Your task to perform on an android device: Open settings on Google Maps Image 0: 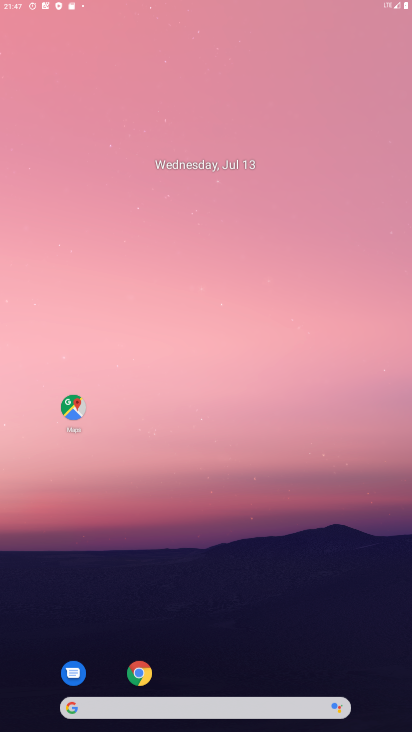
Step 0: click (342, 157)
Your task to perform on an android device: Open settings on Google Maps Image 1: 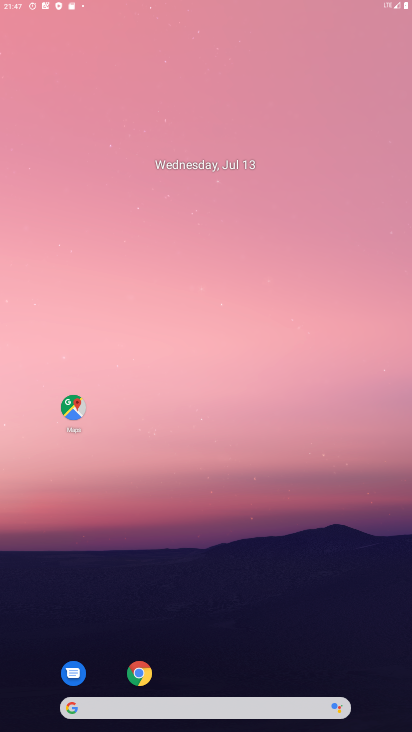
Step 1: drag from (174, 642) to (286, 81)
Your task to perform on an android device: Open settings on Google Maps Image 2: 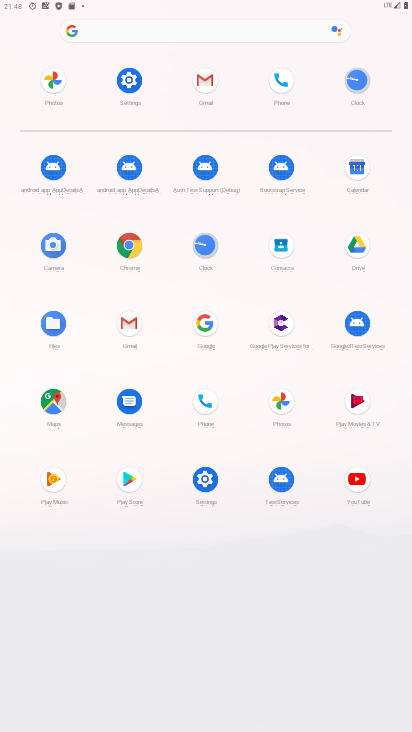
Step 2: click (58, 392)
Your task to perform on an android device: Open settings on Google Maps Image 3: 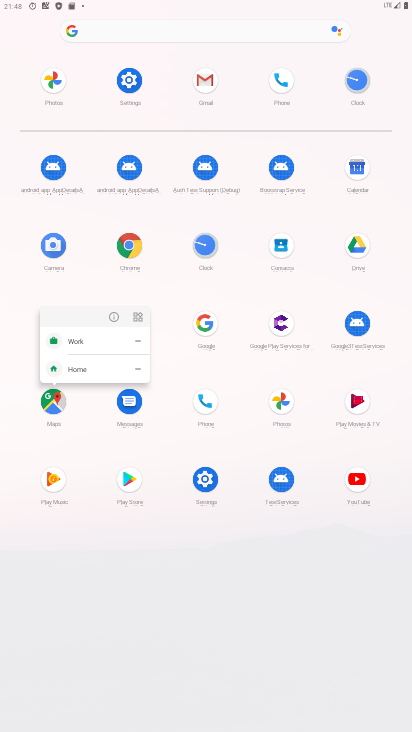
Step 3: click (113, 316)
Your task to perform on an android device: Open settings on Google Maps Image 4: 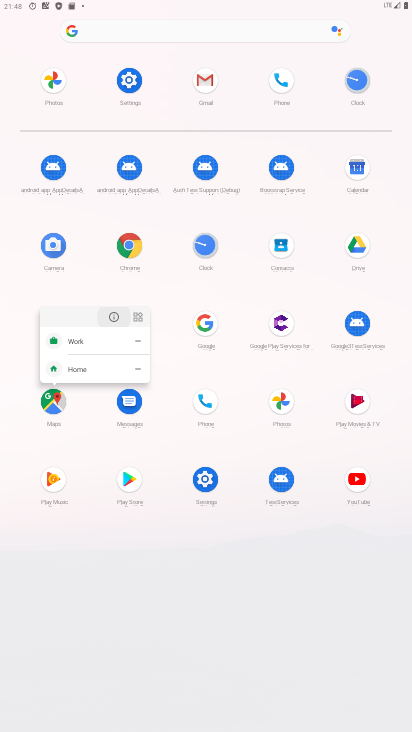
Step 4: click (113, 316)
Your task to perform on an android device: Open settings on Google Maps Image 5: 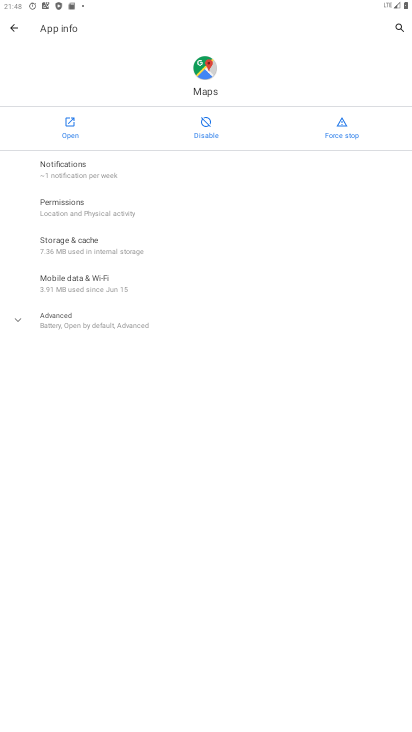
Step 5: click (69, 132)
Your task to perform on an android device: Open settings on Google Maps Image 6: 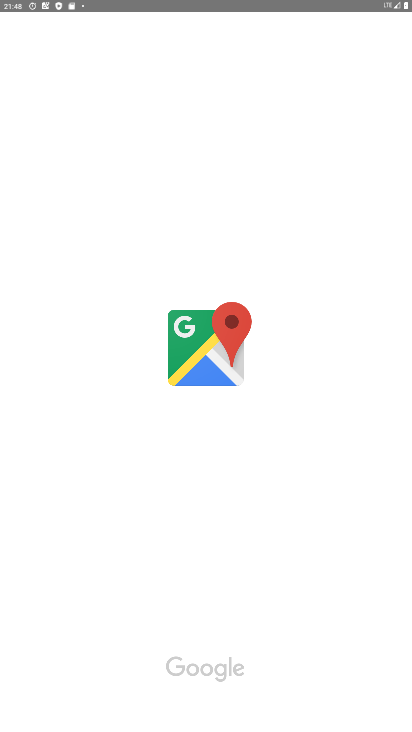
Step 6: drag from (202, 578) to (222, 332)
Your task to perform on an android device: Open settings on Google Maps Image 7: 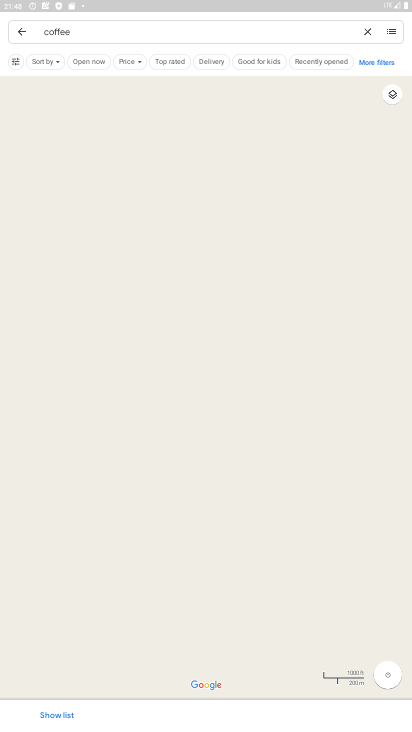
Step 7: drag from (260, 596) to (248, 334)
Your task to perform on an android device: Open settings on Google Maps Image 8: 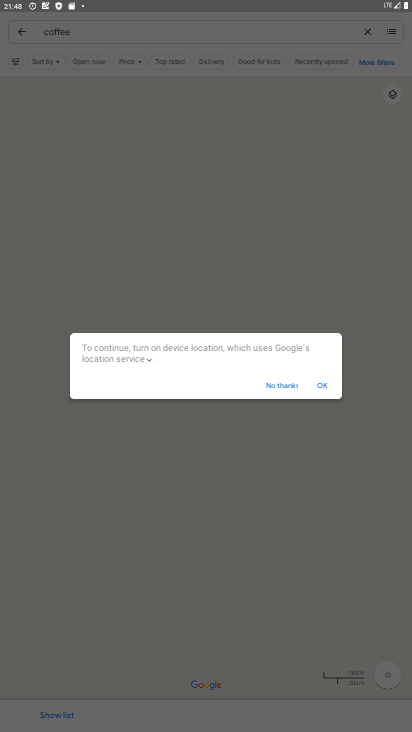
Step 8: drag from (215, 166) to (296, 550)
Your task to perform on an android device: Open settings on Google Maps Image 9: 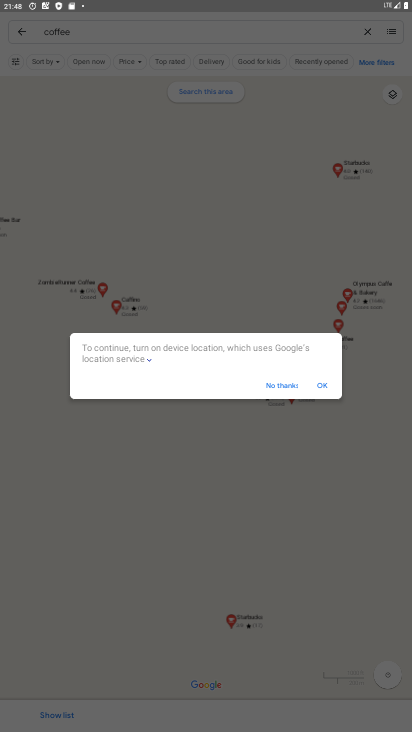
Step 9: click (320, 386)
Your task to perform on an android device: Open settings on Google Maps Image 10: 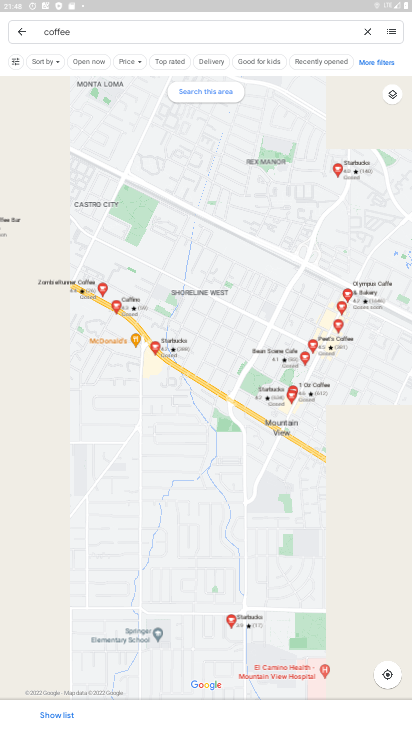
Step 10: click (19, 34)
Your task to perform on an android device: Open settings on Google Maps Image 11: 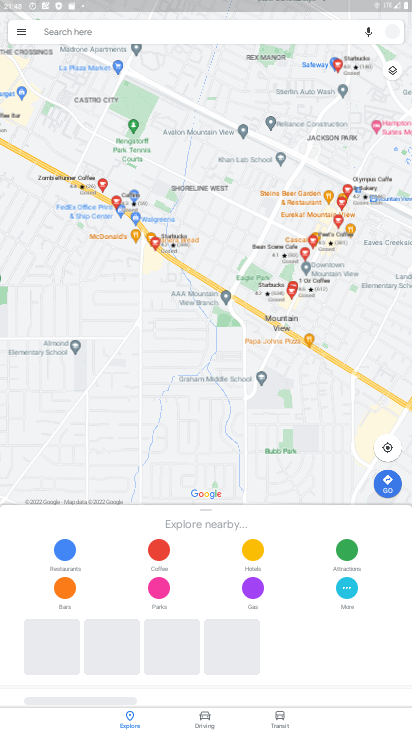
Step 11: click (14, 32)
Your task to perform on an android device: Open settings on Google Maps Image 12: 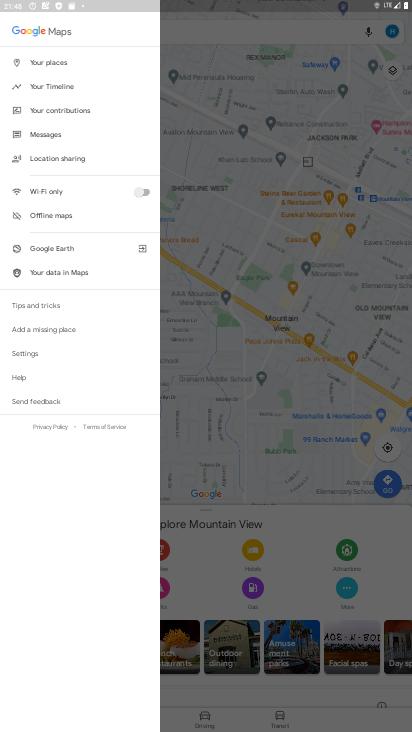
Step 12: click (33, 354)
Your task to perform on an android device: Open settings on Google Maps Image 13: 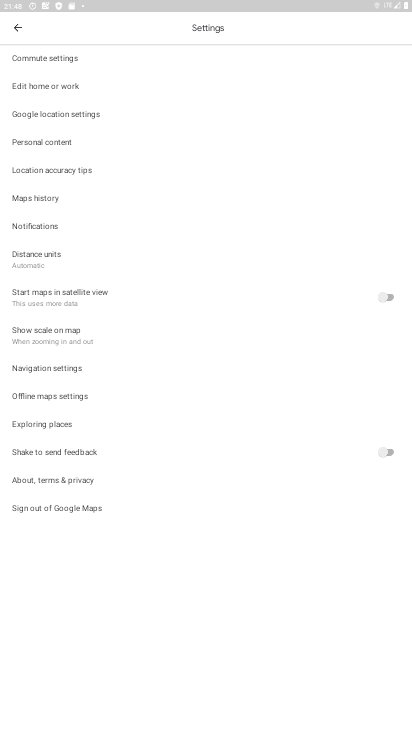
Step 13: drag from (237, 514) to (225, 338)
Your task to perform on an android device: Open settings on Google Maps Image 14: 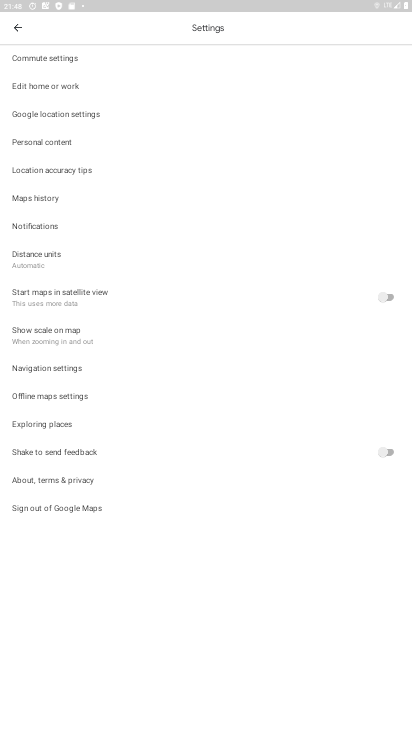
Step 14: drag from (210, 509) to (225, 248)
Your task to perform on an android device: Open settings on Google Maps Image 15: 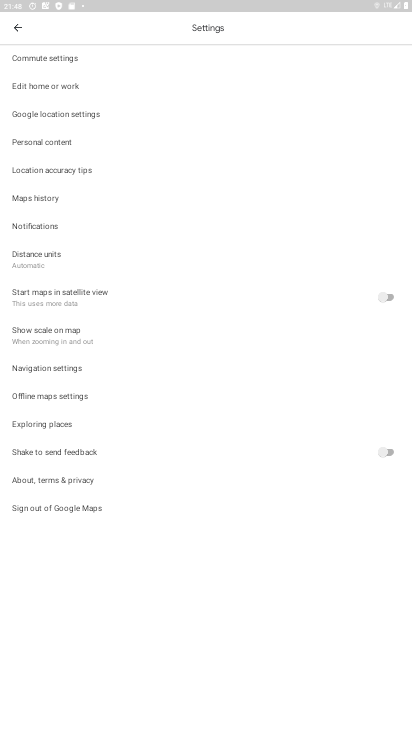
Step 15: drag from (192, 166) to (235, 616)
Your task to perform on an android device: Open settings on Google Maps Image 16: 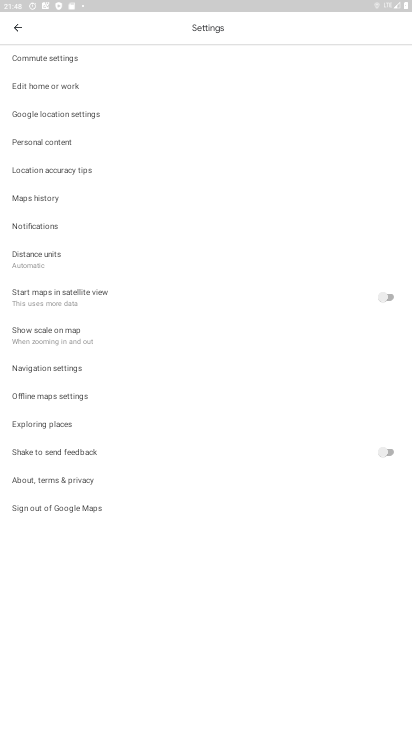
Step 16: drag from (162, 156) to (301, 716)
Your task to perform on an android device: Open settings on Google Maps Image 17: 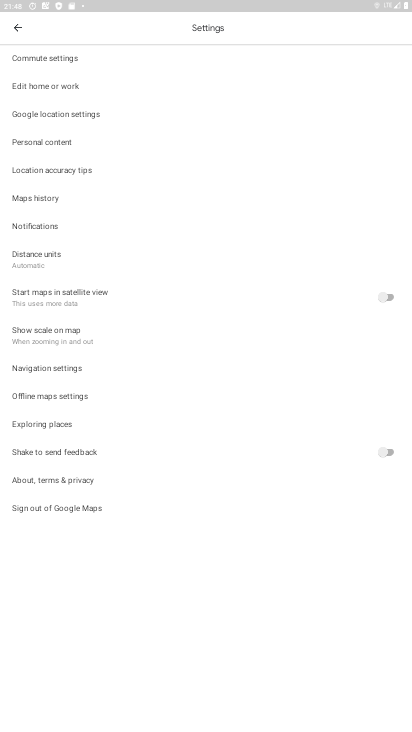
Step 17: drag from (255, 415) to (374, 623)
Your task to perform on an android device: Open settings on Google Maps Image 18: 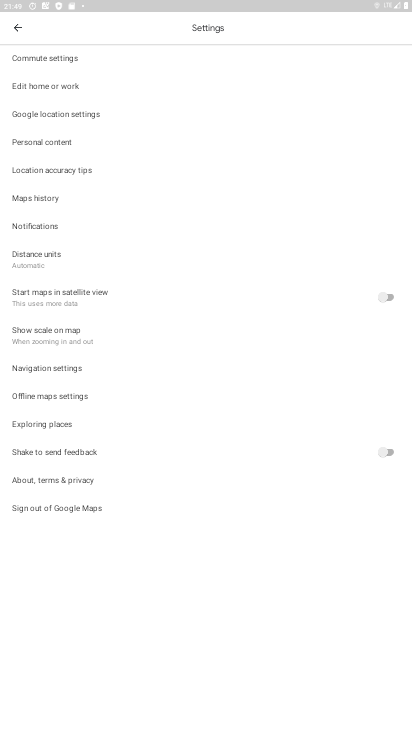
Step 18: drag from (96, 148) to (177, 648)
Your task to perform on an android device: Open settings on Google Maps Image 19: 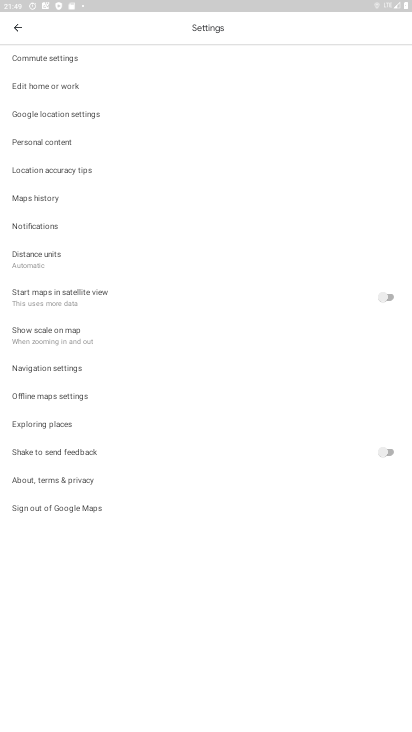
Step 19: drag from (198, 150) to (241, 523)
Your task to perform on an android device: Open settings on Google Maps Image 20: 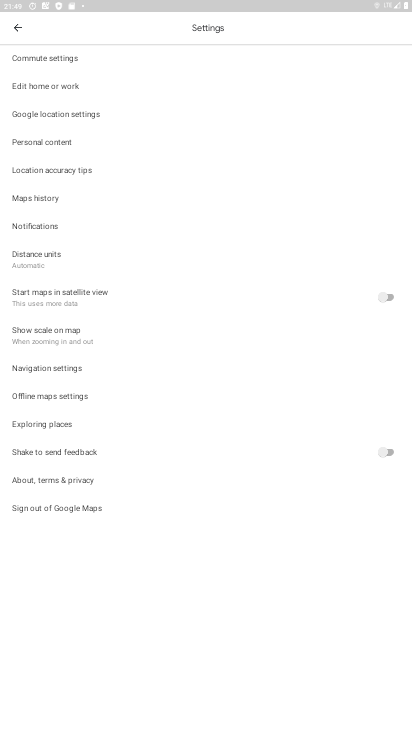
Step 20: drag from (189, 149) to (286, 551)
Your task to perform on an android device: Open settings on Google Maps Image 21: 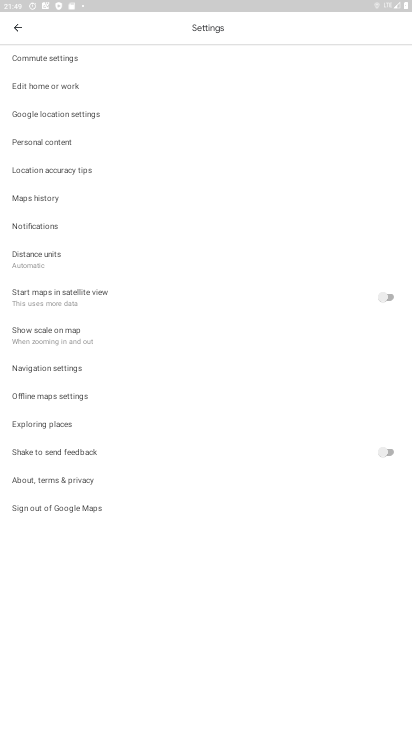
Step 21: drag from (184, 115) to (229, 587)
Your task to perform on an android device: Open settings on Google Maps Image 22: 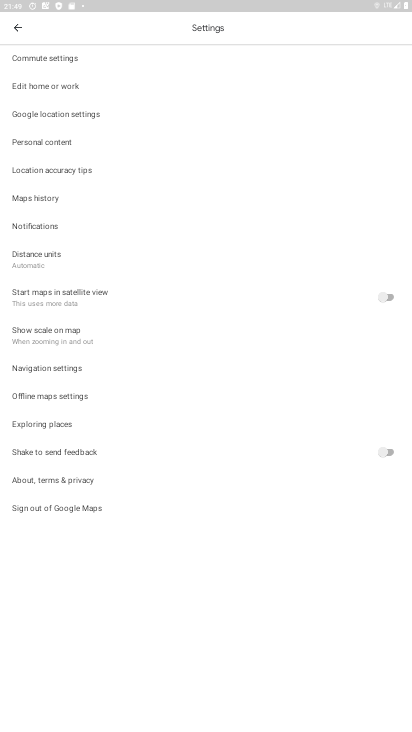
Step 22: drag from (192, 170) to (245, 681)
Your task to perform on an android device: Open settings on Google Maps Image 23: 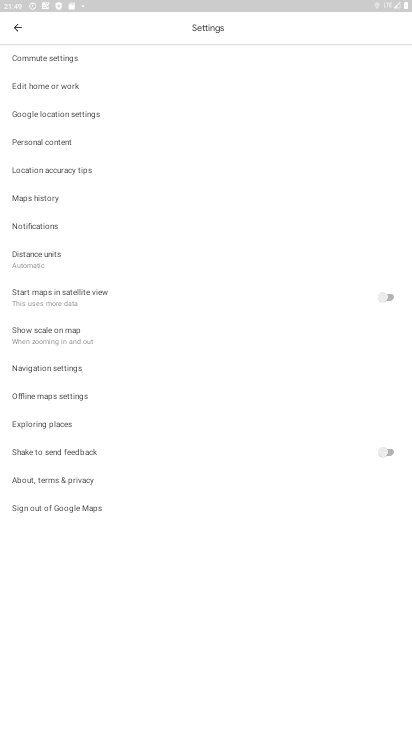
Step 23: drag from (145, 152) to (407, 633)
Your task to perform on an android device: Open settings on Google Maps Image 24: 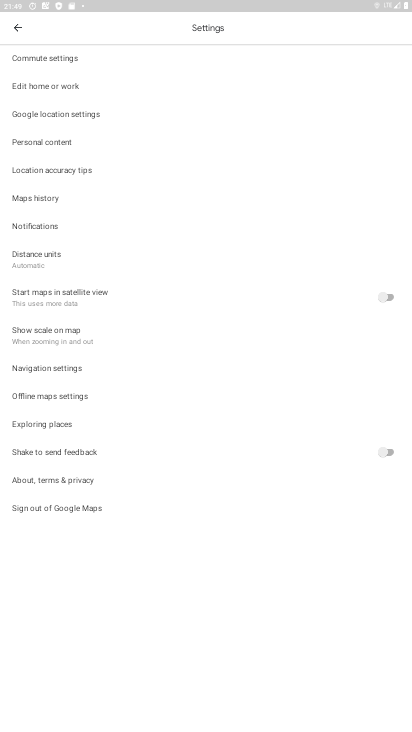
Step 24: drag from (79, 91) to (193, 659)
Your task to perform on an android device: Open settings on Google Maps Image 25: 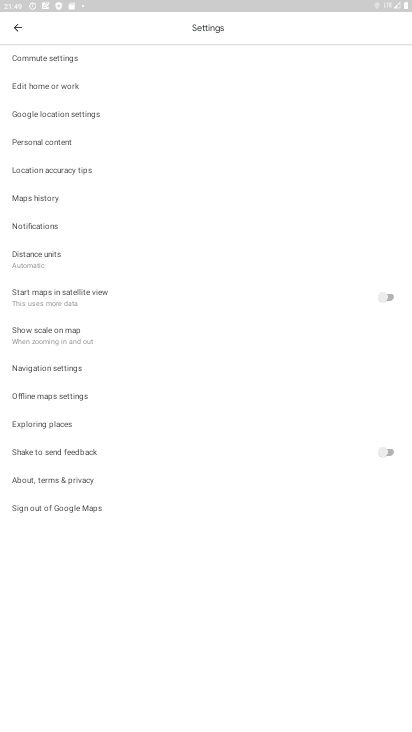
Step 25: drag from (255, 725) to (199, 718)
Your task to perform on an android device: Open settings on Google Maps Image 26: 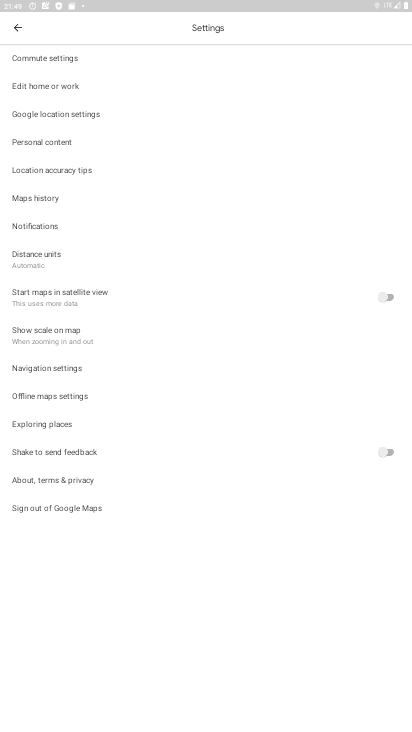
Step 26: drag from (194, 103) to (224, 639)
Your task to perform on an android device: Open settings on Google Maps Image 27: 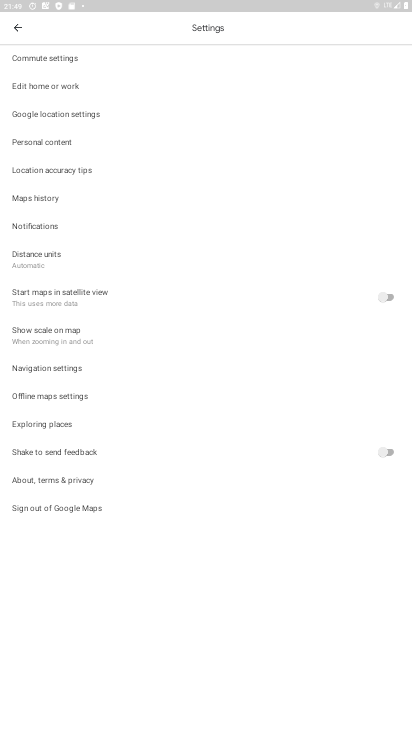
Step 27: drag from (153, 165) to (386, 727)
Your task to perform on an android device: Open settings on Google Maps Image 28: 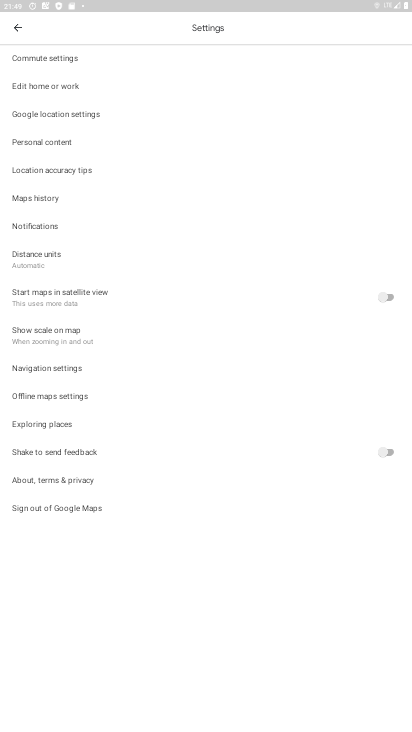
Step 28: click (15, 20)
Your task to perform on an android device: Open settings on Google Maps Image 29: 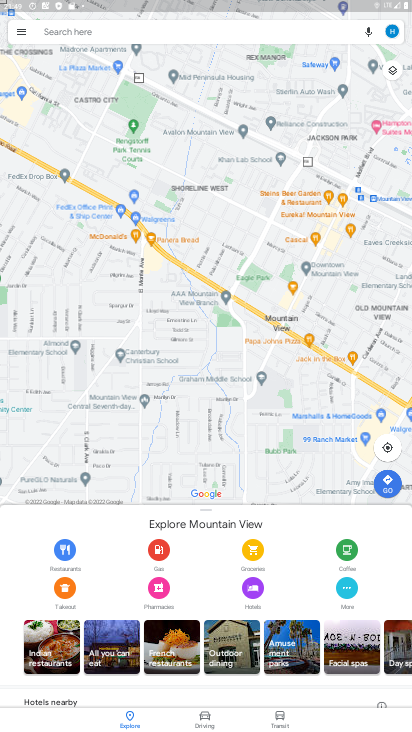
Step 29: drag from (276, 292) to (322, 723)
Your task to perform on an android device: Open settings on Google Maps Image 30: 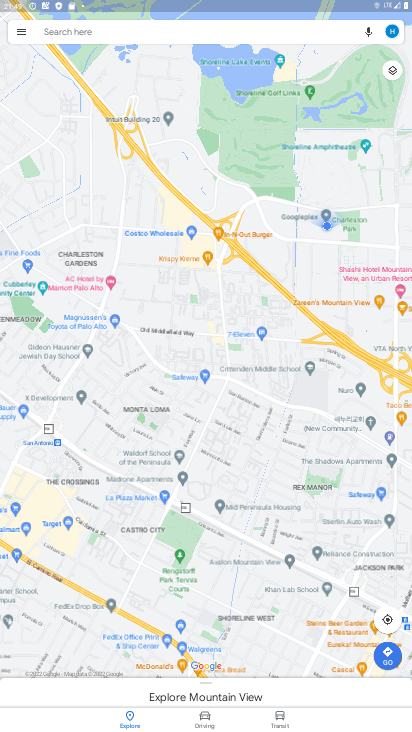
Step 30: click (13, 28)
Your task to perform on an android device: Open settings on Google Maps Image 31: 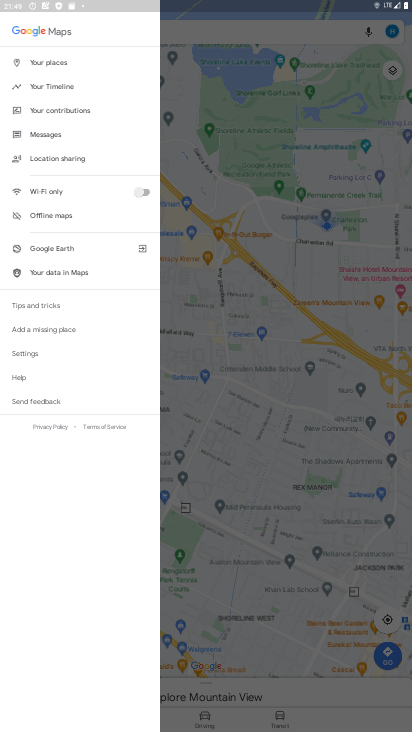
Step 31: click (49, 348)
Your task to perform on an android device: Open settings on Google Maps Image 32: 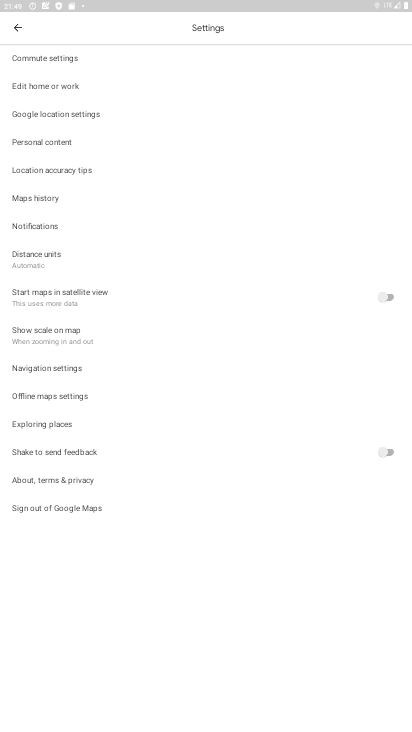
Step 32: task complete